Your task to perform on an android device: Open Youtube and go to "Your channel" Image 0: 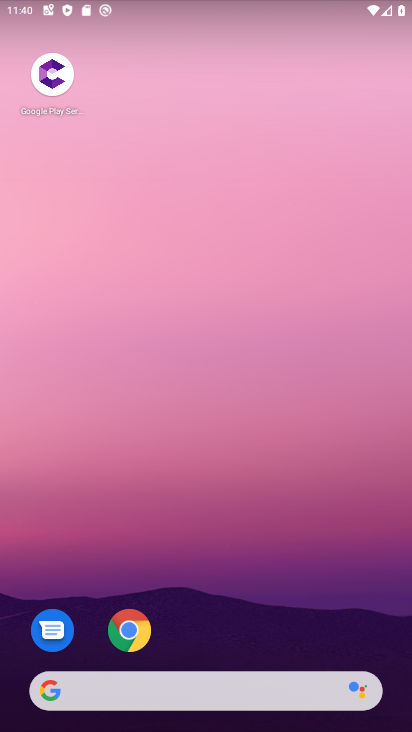
Step 0: drag from (300, 624) to (287, 168)
Your task to perform on an android device: Open Youtube and go to "Your channel" Image 1: 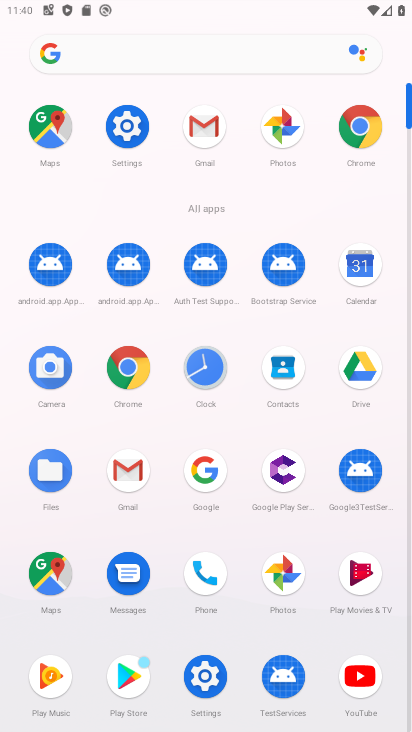
Step 1: click (364, 696)
Your task to perform on an android device: Open Youtube and go to "Your channel" Image 2: 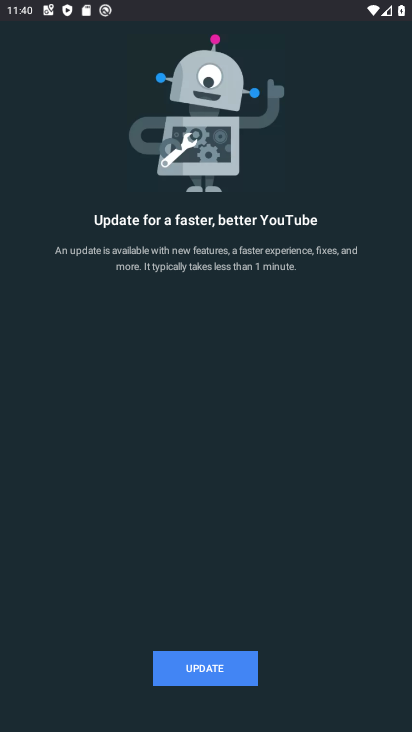
Step 2: click (207, 674)
Your task to perform on an android device: Open Youtube and go to "Your channel" Image 3: 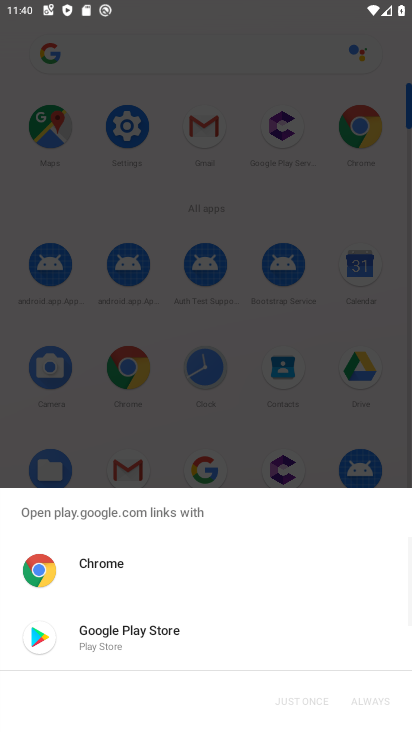
Step 3: click (122, 639)
Your task to perform on an android device: Open Youtube and go to "Your channel" Image 4: 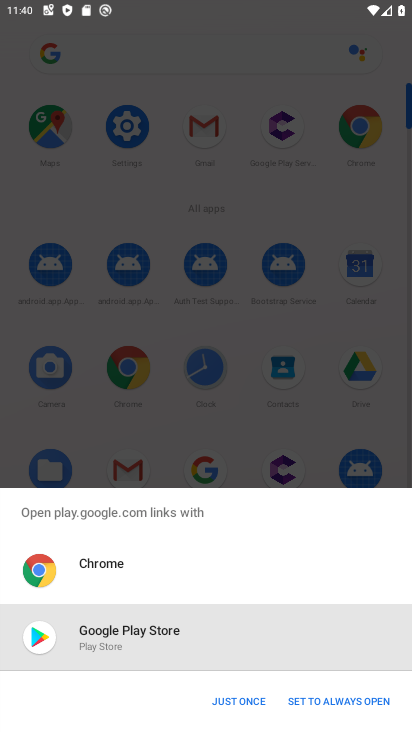
Step 4: click (229, 702)
Your task to perform on an android device: Open Youtube and go to "Your channel" Image 5: 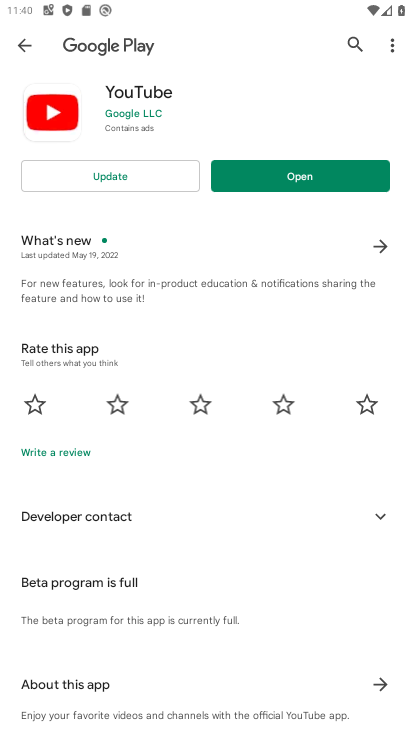
Step 5: click (127, 168)
Your task to perform on an android device: Open Youtube and go to "Your channel" Image 6: 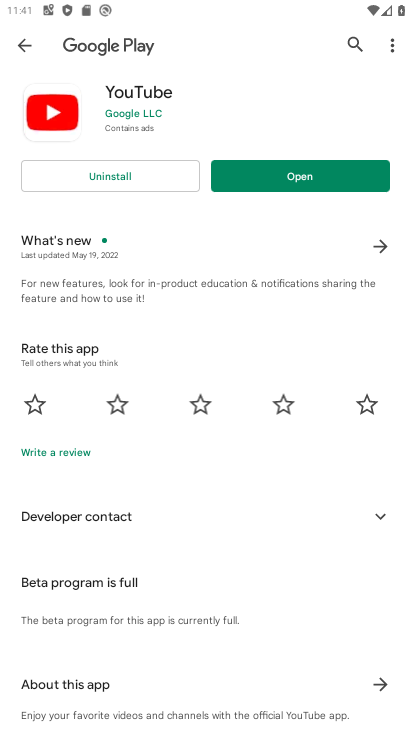
Step 6: click (298, 170)
Your task to perform on an android device: Open Youtube and go to "Your channel" Image 7: 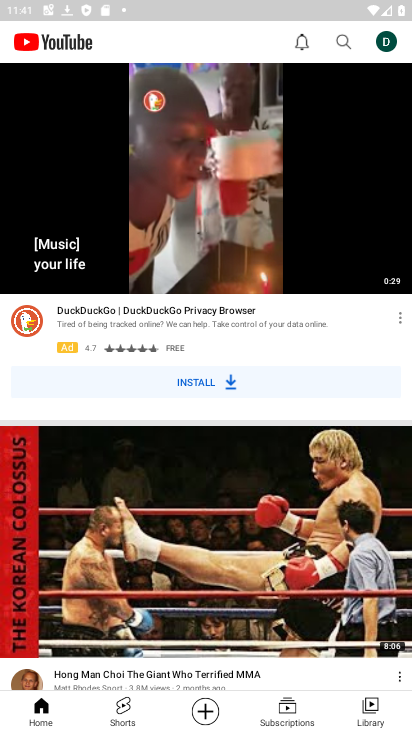
Step 7: click (391, 40)
Your task to perform on an android device: Open Youtube and go to "Your channel" Image 8: 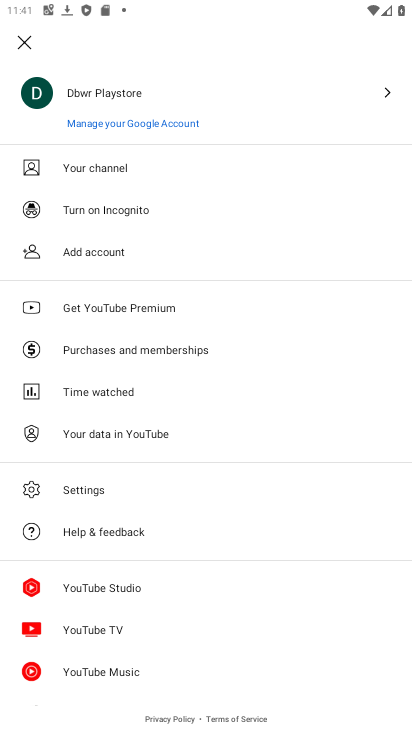
Step 8: click (86, 174)
Your task to perform on an android device: Open Youtube and go to "Your channel" Image 9: 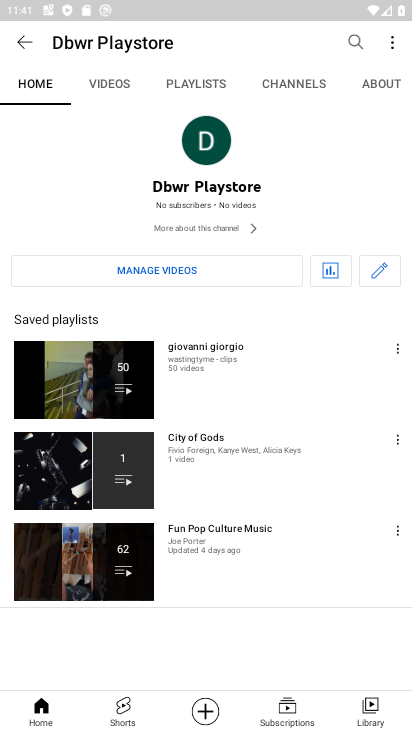
Step 9: task complete